Your task to perform on an android device: turn off data saver in the chrome app Image 0: 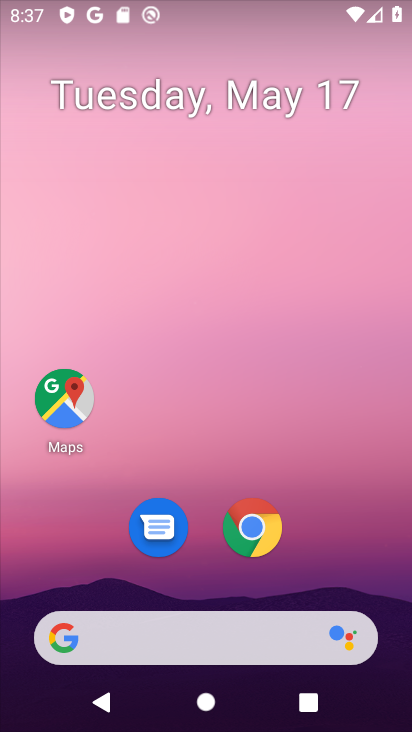
Step 0: click (266, 520)
Your task to perform on an android device: turn off data saver in the chrome app Image 1: 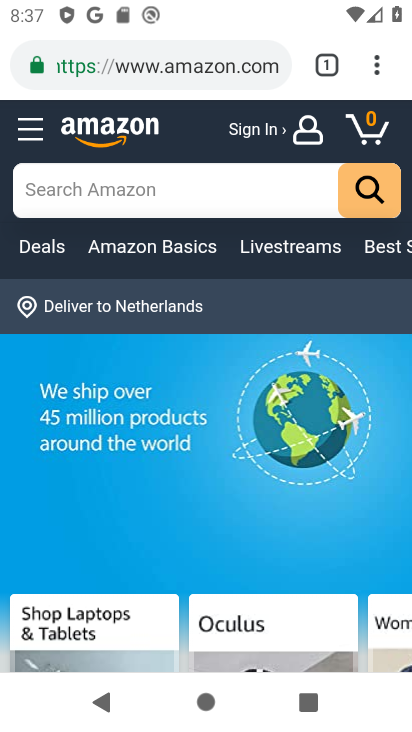
Step 1: click (375, 64)
Your task to perform on an android device: turn off data saver in the chrome app Image 2: 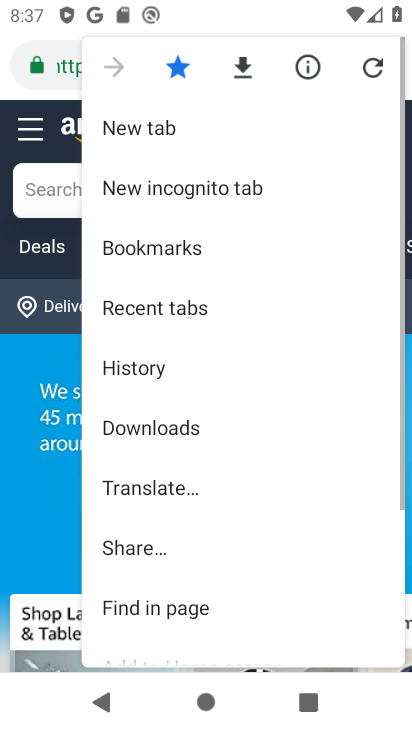
Step 2: drag from (256, 488) to (222, 107)
Your task to perform on an android device: turn off data saver in the chrome app Image 3: 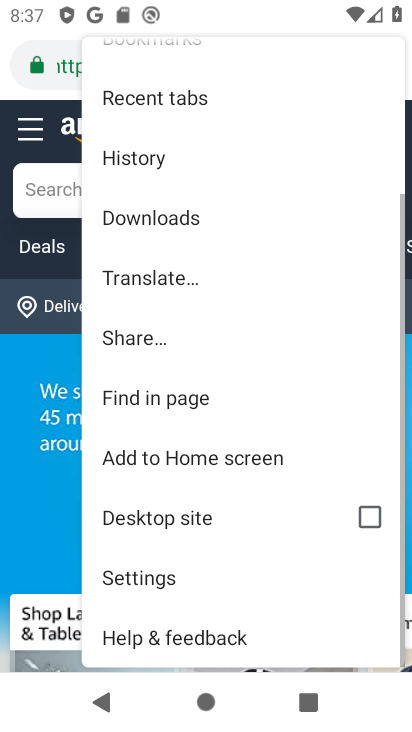
Step 3: click (169, 568)
Your task to perform on an android device: turn off data saver in the chrome app Image 4: 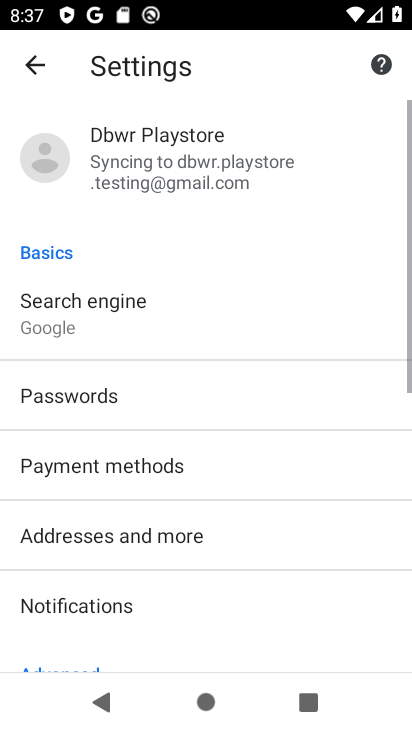
Step 4: drag from (168, 568) to (117, 40)
Your task to perform on an android device: turn off data saver in the chrome app Image 5: 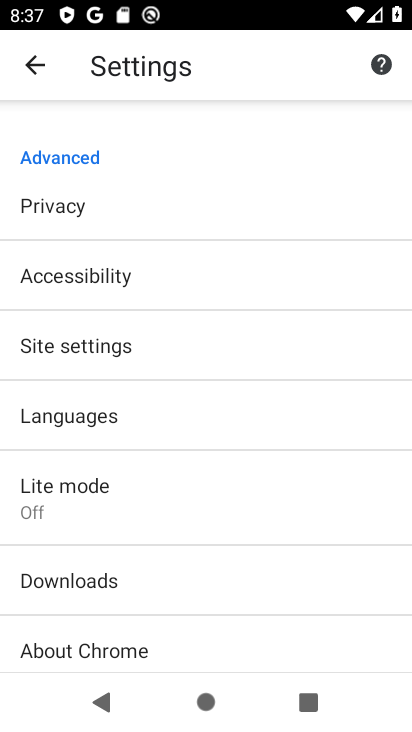
Step 5: click (121, 501)
Your task to perform on an android device: turn off data saver in the chrome app Image 6: 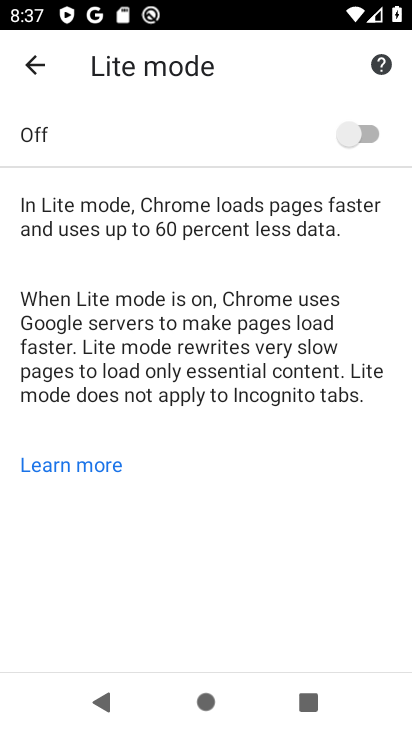
Step 6: task complete